Your task to perform on an android device: turn notification dots on Image 0: 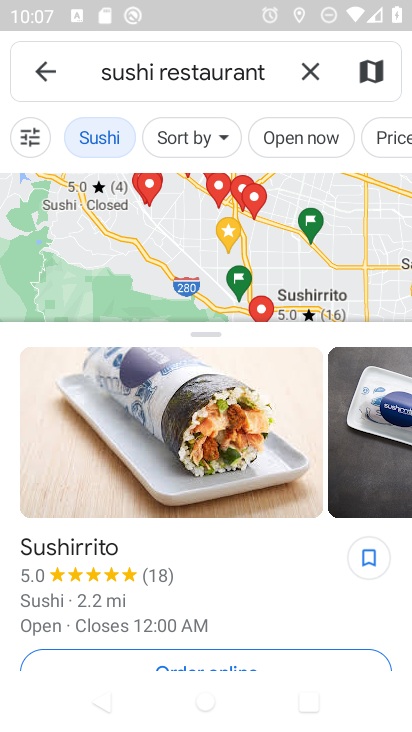
Step 0: press home button
Your task to perform on an android device: turn notification dots on Image 1: 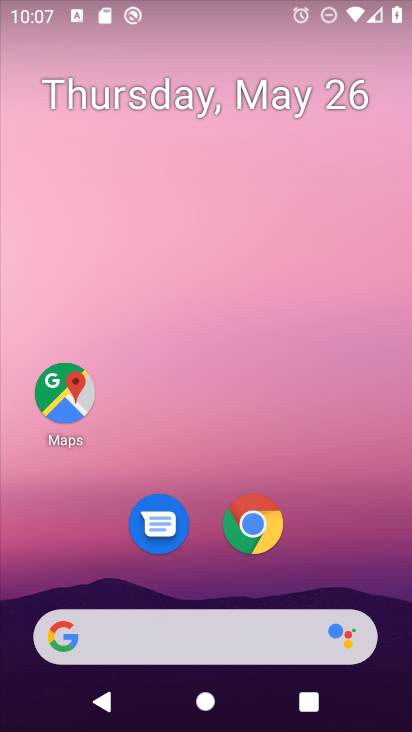
Step 1: drag from (190, 515) to (197, 46)
Your task to perform on an android device: turn notification dots on Image 2: 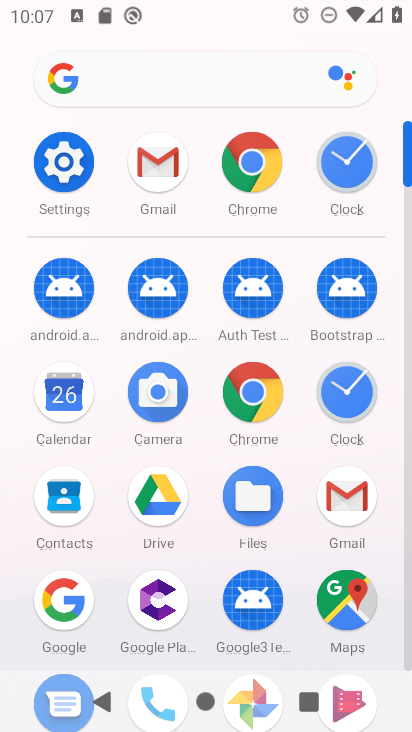
Step 2: click (67, 161)
Your task to perform on an android device: turn notification dots on Image 3: 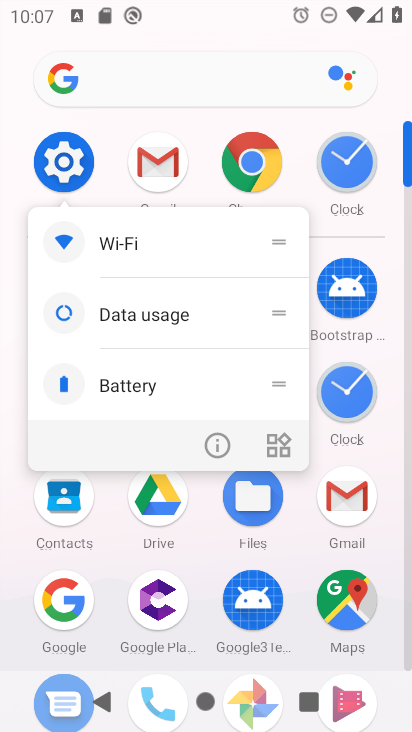
Step 3: click (67, 161)
Your task to perform on an android device: turn notification dots on Image 4: 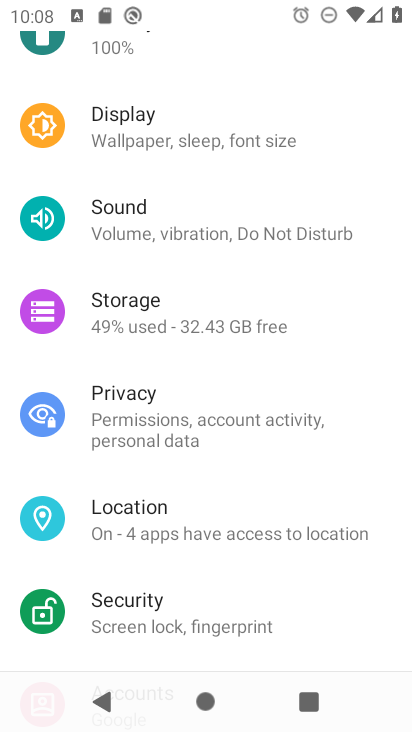
Step 4: drag from (245, 508) to (222, 181)
Your task to perform on an android device: turn notification dots on Image 5: 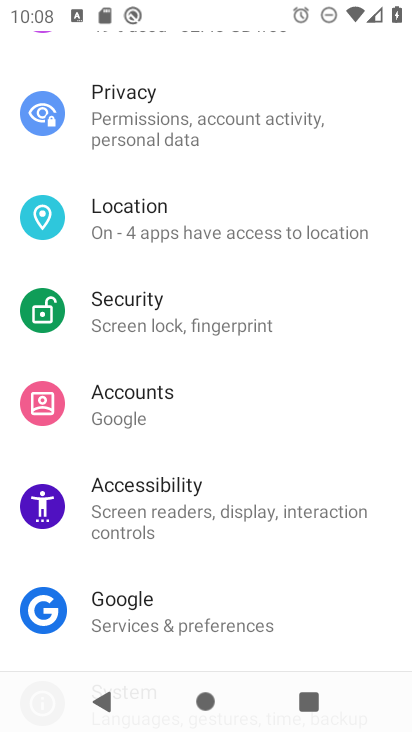
Step 5: drag from (231, 170) to (224, 609)
Your task to perform on an android device: turn notification dots on Image 6: 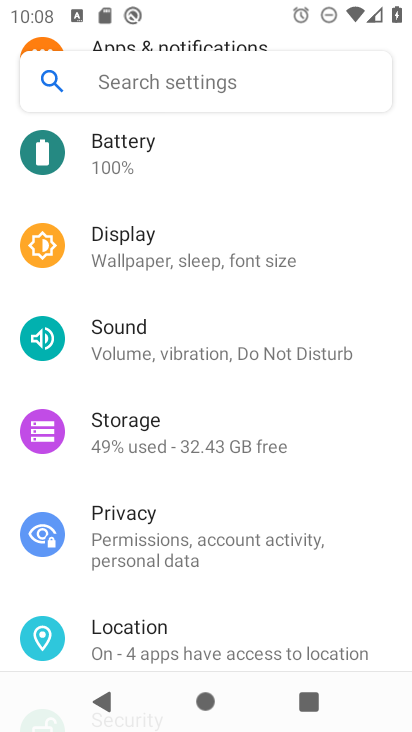
Step 6: drag from (223, 184) to (199, 587)
Your task to perform on an android device: turn notification dots on Image 7: 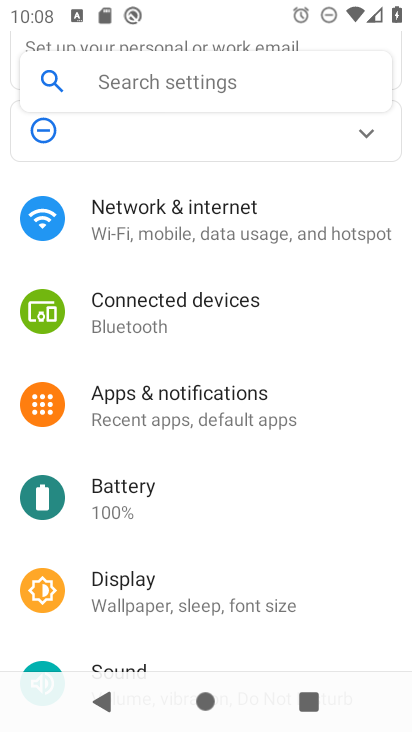
Step 7: click (220, 408)
Your task to perform on an android device: turn notification dots on Image 8: 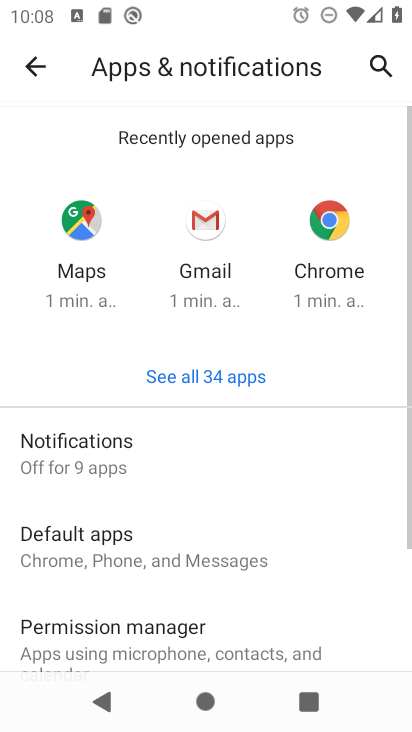
Step 8: click (128, 457)
Your task to perform on an android device: turn notification dots on Image 9: 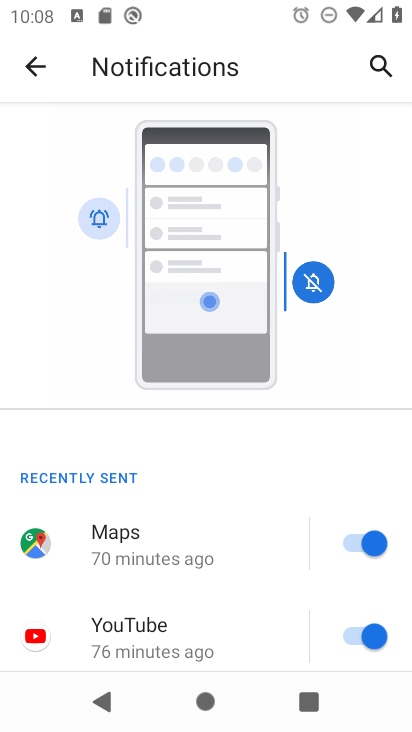
Step 9: drag from (227, 597) to (274, 179)
Your task to perform on an android device: turn notification dots on Image 10: 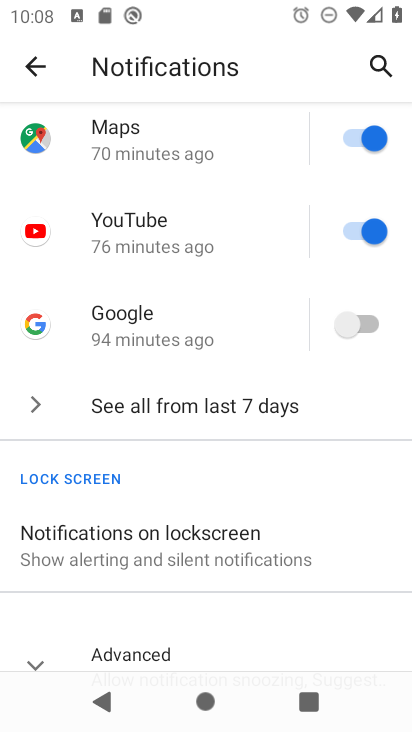
Step 10: drag from (154, 615) to (164, 421)
Your task to perform on an android device: turn notification dots on Image 11: 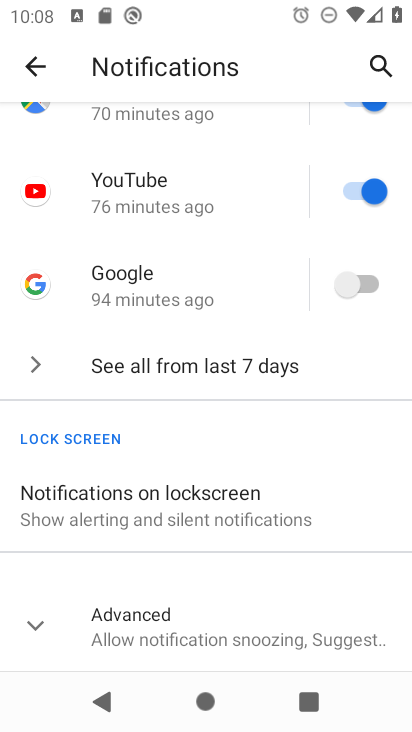
Step 11: click (33, 623)
Your task to perform on an android device: turn notification dots on Image 12: 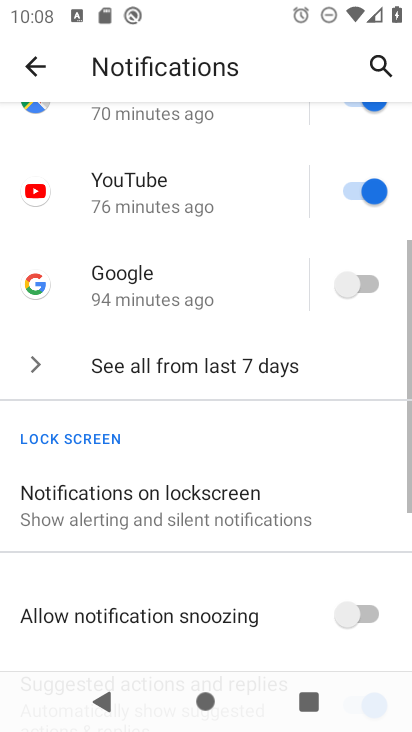
Step 12: task complete